Your task to perform on an android device: What is the recent news? Image 0: 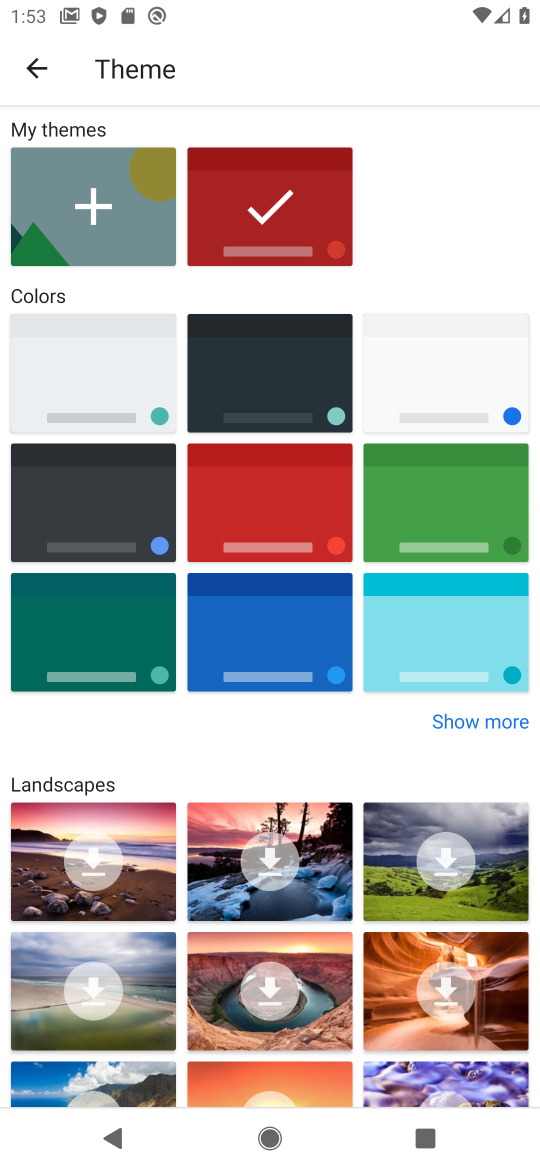
Step 0: press home button
Your task to perform on an android device: What is the recent news? Image 1: 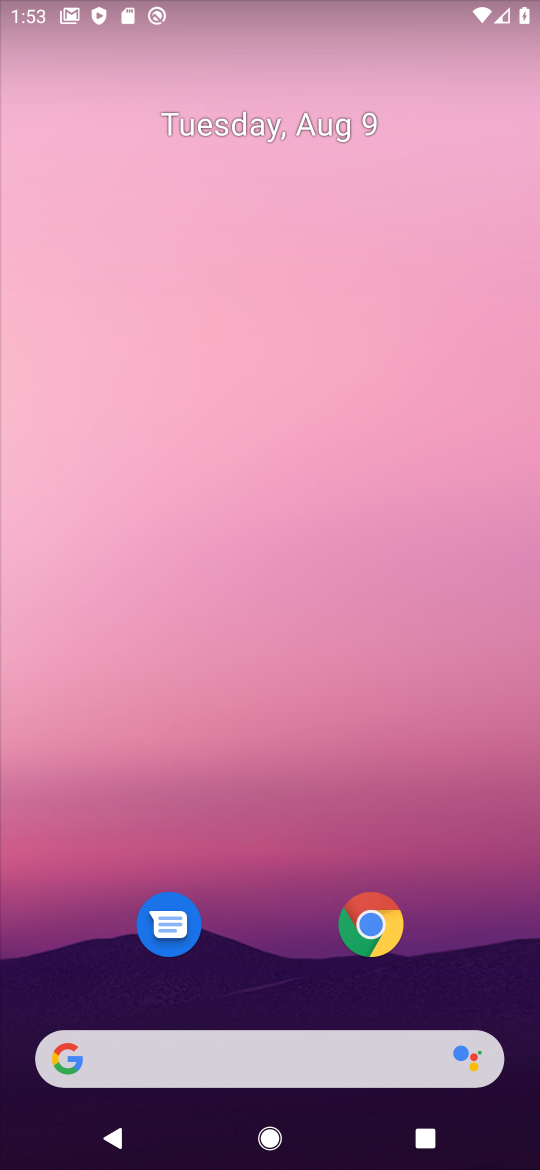
Step 1: task complete